Your task to perform on an android device: toggle location history Image 0: 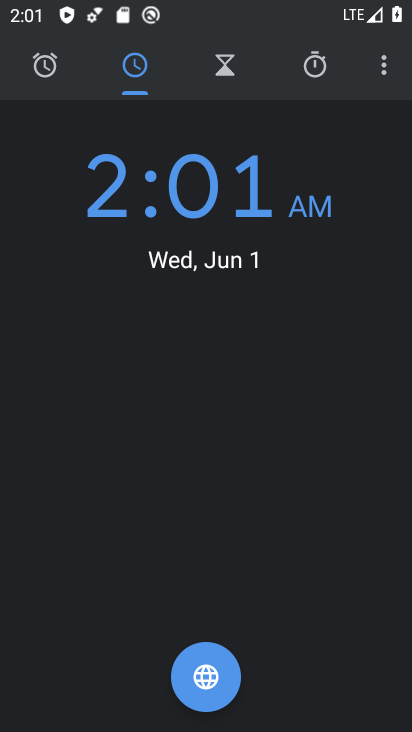
Step 0: press home button
Your task to perform on an android device: toggle location history Image 1: 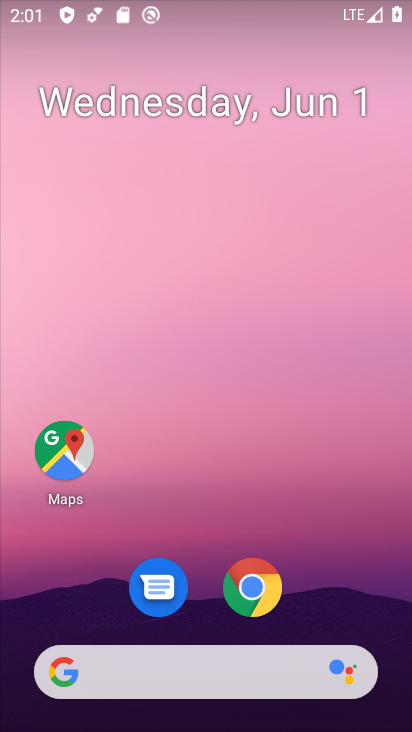
Step 1: drag from (232, 675) to (227, 135)
Your task to perform on an android device: toggle location history Image 2: 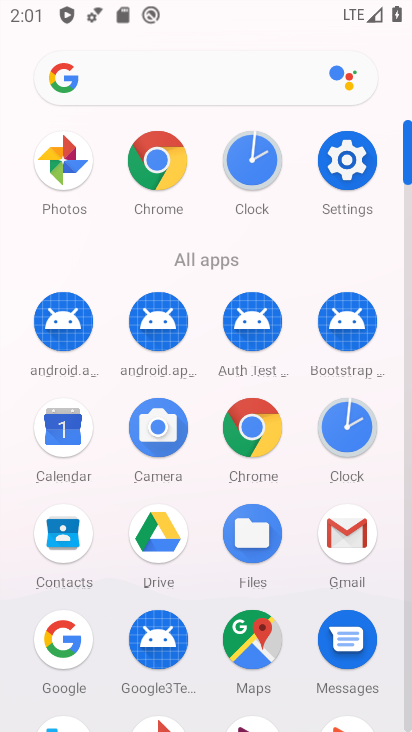
Step 2: click (348, 168)
Your task to perform on an android device: toggle location history Image 3: 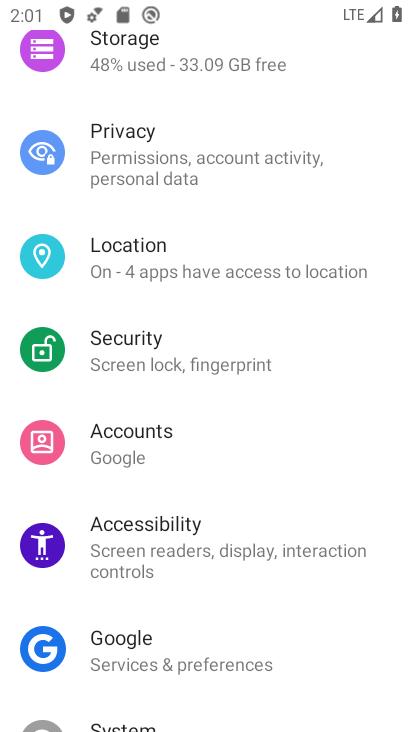
Step 3: click (137, 276)
Your task to perform on an android device: toggle location history Image 4: 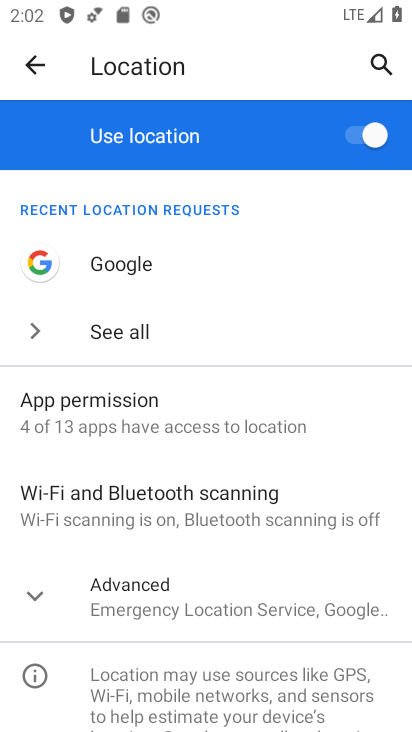
Step 4: drag from (168, 541) to (159, 340)
Your task to perform on an android device: toggle location history Image 5: 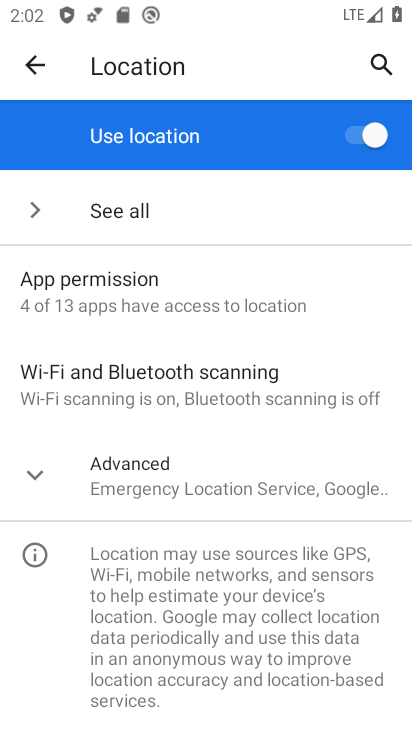
Step 5: click (173, 457)
Your task to perform on an android device: toggle location history Image 6: 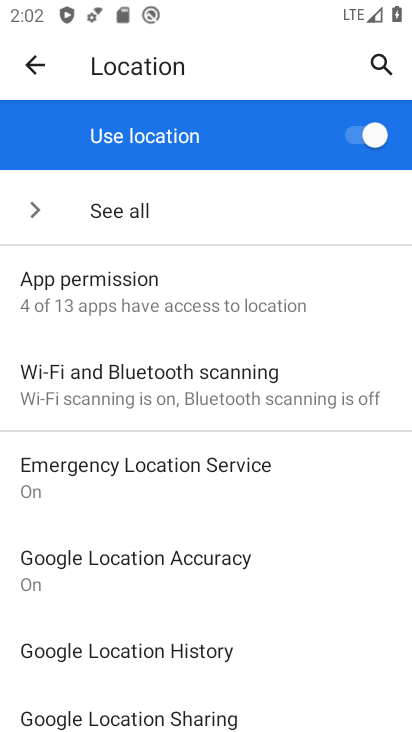
Step 6: click (191, 654)
Your task to perform on an android device: toggle location history Image 7: 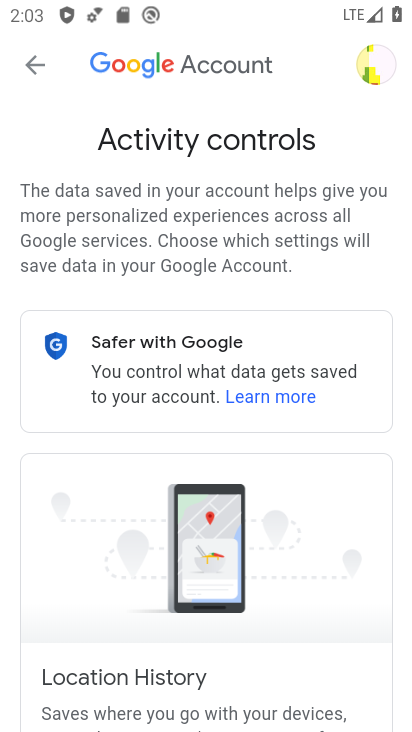
Step 7: drag from (357, 572) to (63, 116)
Your task to perform on an android device: toggle location history Image 8: 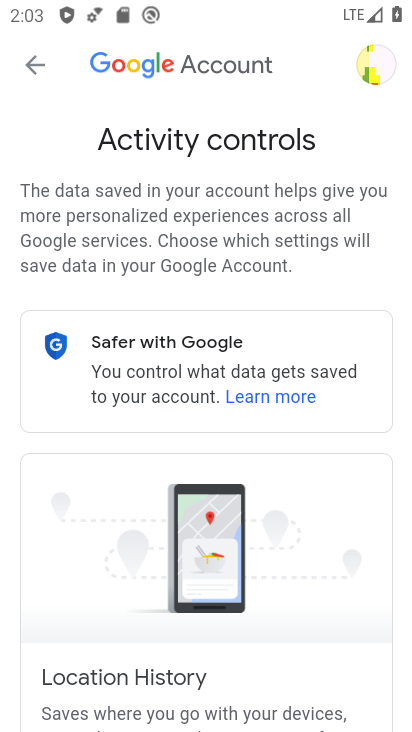
Step 8: drag from (357, 608) to (109, 154)
Your task to perform on an android device: toggle location history Image 9: 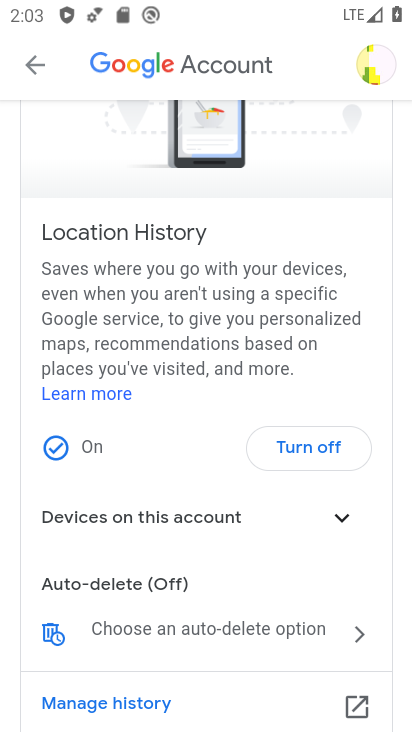
Step 9: click (324, 468)
Your task to perform on an android device: toggle location history Image 10: 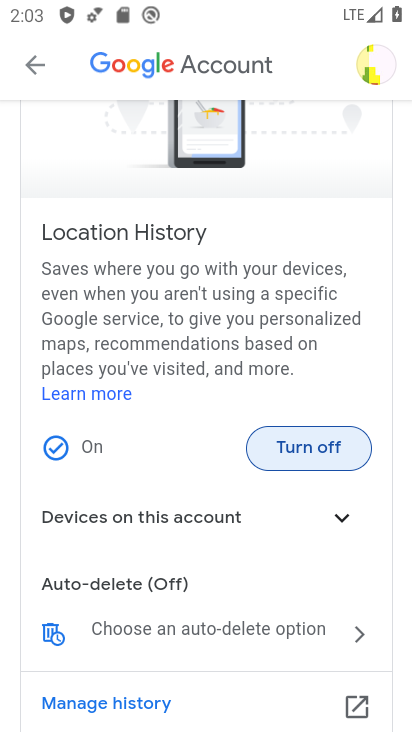
Step 10: click (314, 448)
Your task to perform on an android device: toggle location history Image 11: 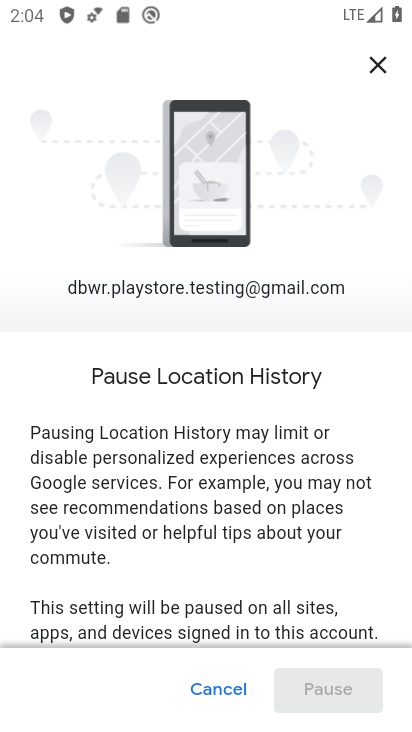
Step 11: drag from (313, 557) to (114, 155)
Your task to perform on an android device: toggle location history Image 12: 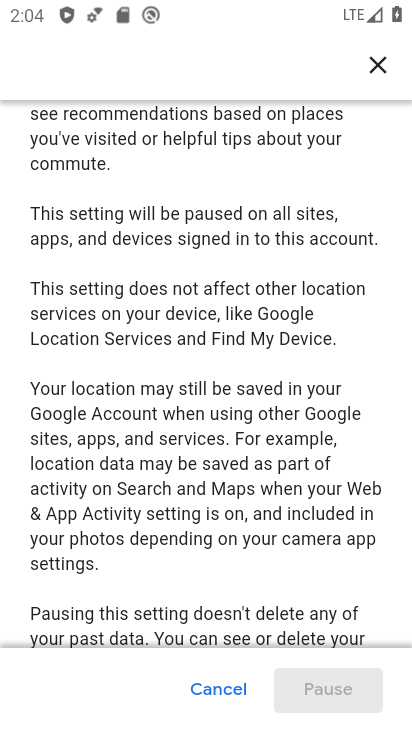
Step 12: drag from (184, 396) to (21, 109)
Your task to perform on an android device: toggle location history Image 13: 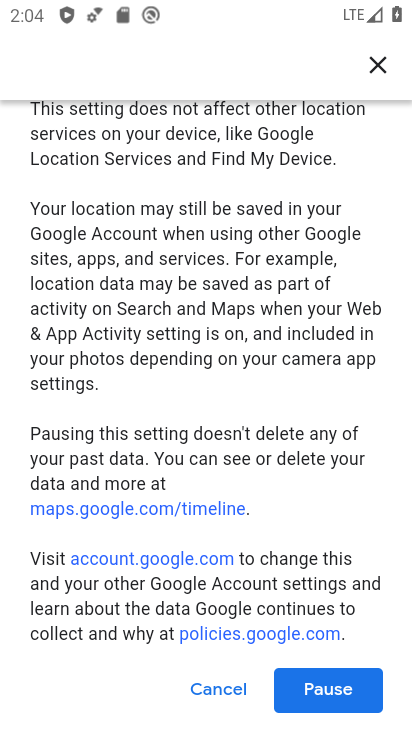
Step 13: click (321, 690)
Your task to perform on an android device: toggle location history Image 14: 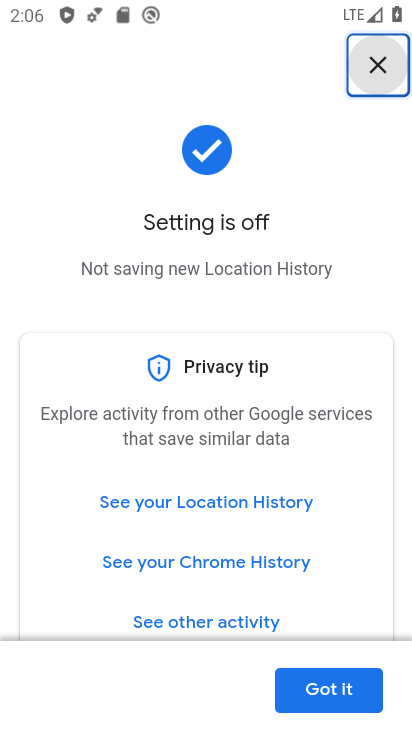
Step 14: click (327, 707)
Your task to perform on an android device: toggle location history Image 15: 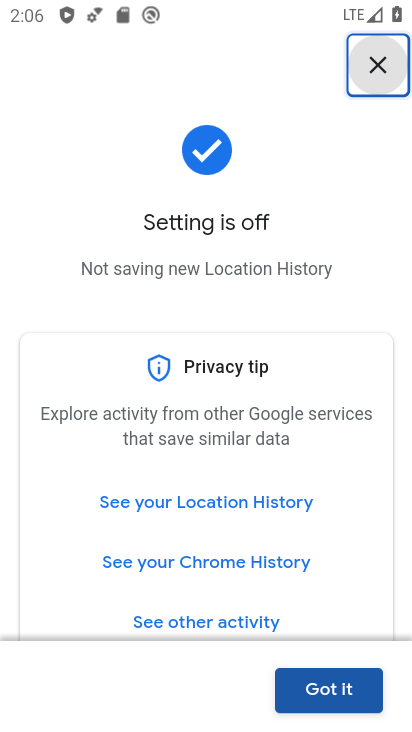
Step 15: task complete